Your task to perform on an android device: Do I have any events this weekend? Image 0: 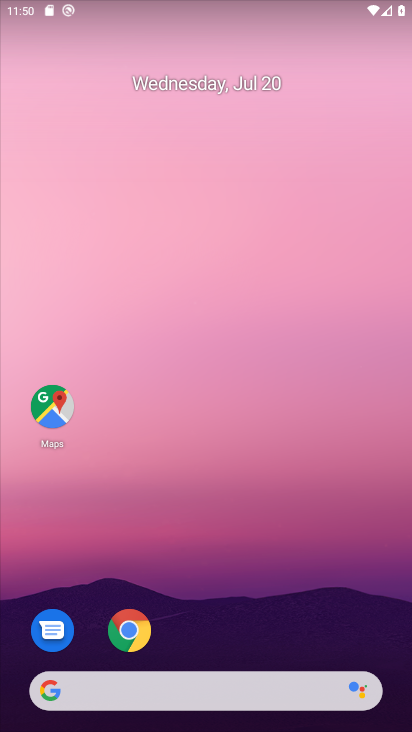
Step 0: drag from (208, 127) to (205, 16)
Your task to perform on an android device: Do I have any events this weekend? Image 1: 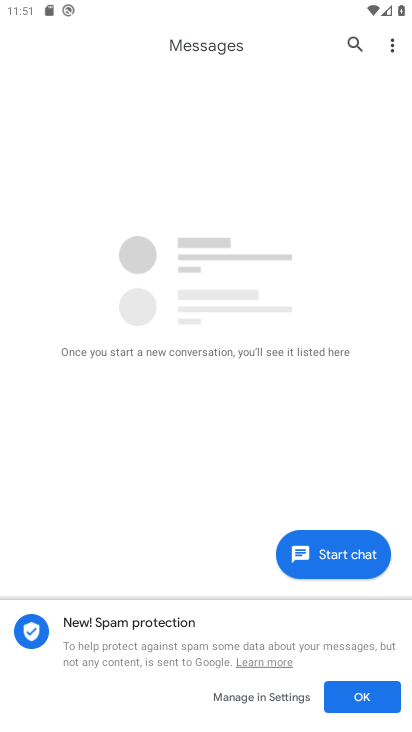
Step 1: drag from (217, 629) to (225, 230)
Your task to perform on an android device: Do I have any events this weekend? Image 2: 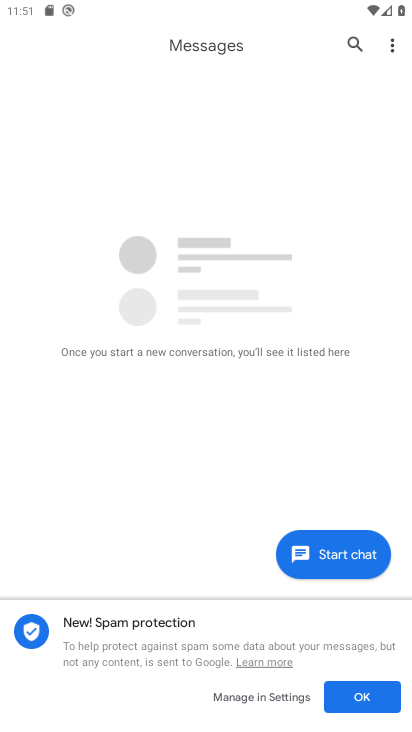
Step 2: press home button
Your task to perform on an android device: Do I have any events this weekend? Image 3: 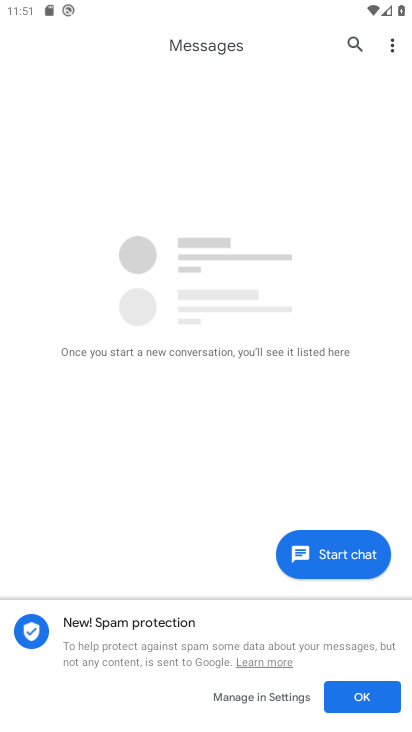
Step 3: press home button
Your task to perform on an android device: Do I have any events this weekend? Image 4: 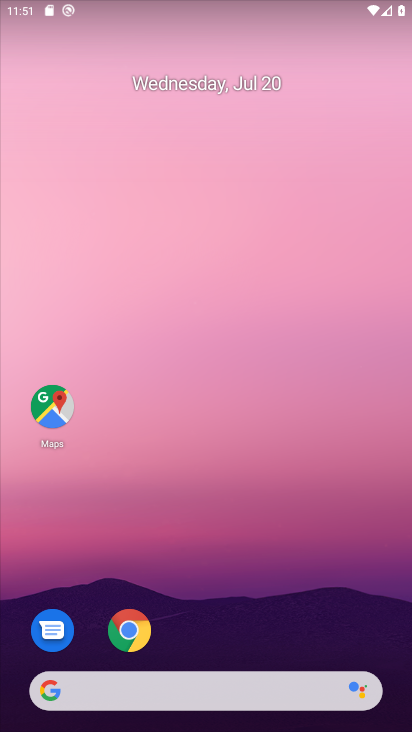
Step 4: drag from (212, 611) to (217, 127)
Your task to perform on an android device: Do I have any events this weekend? Image 5: 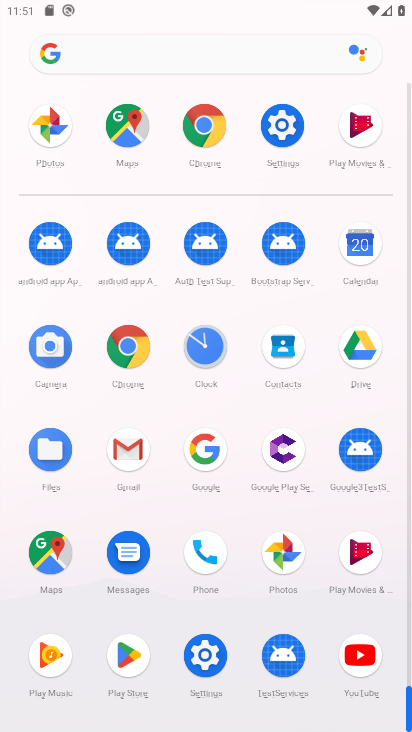
Step 5: click (363, 248)
Your task to perform on an android device: Do I have any events this weekend? Image 6: 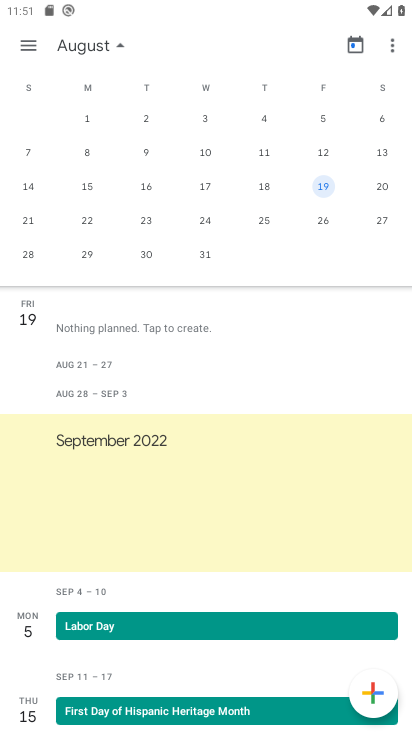
Step 6: drag from (174, 567) to (237, 274)
Your task to perform on an android device: Do I have any events this weekend? Image 7: 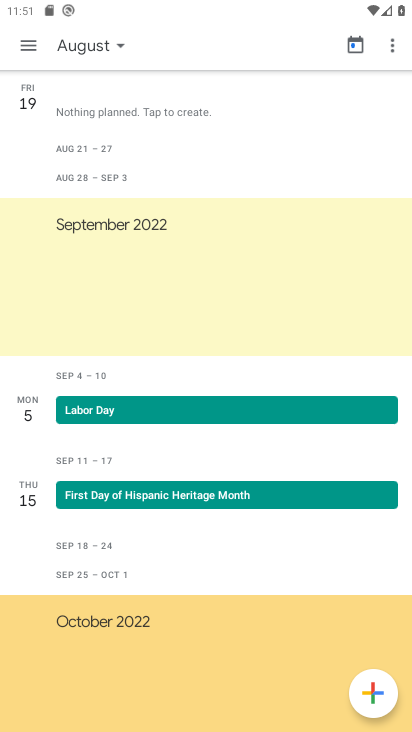
Step 7: click (346, 50)
Your task to perform on an android device: Do I have any events this weekend? Image 8: 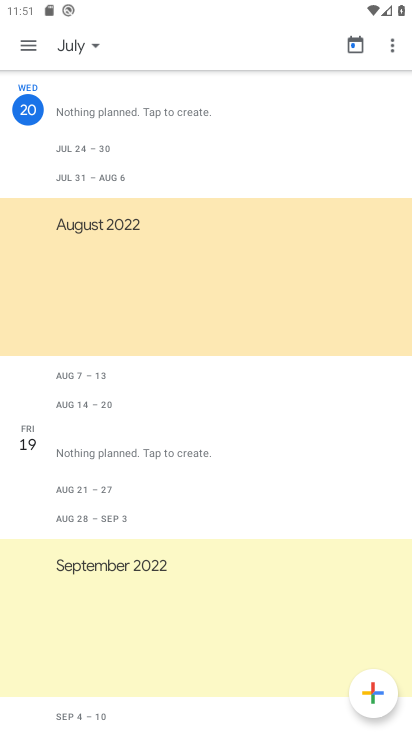
Step 8: click (96, 48)
Your task to perform on an android device: Do I have any events this weekend? Image 9: 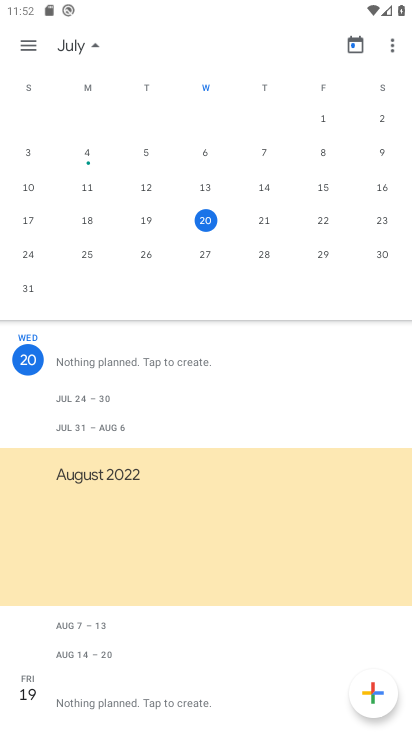
Step 9: click (86, 41)
Your task to perform on an android device: Do I have any events this weekend? Image 10: 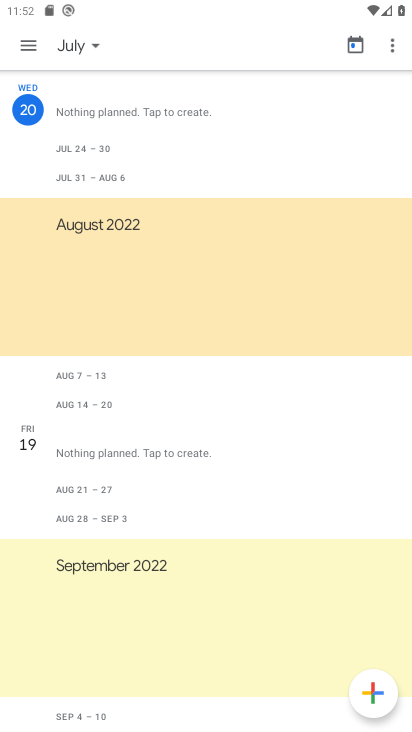
Step 10: click (75, 47)
Your task to perform on an android device: Do I have any events this weekend? Image 11: 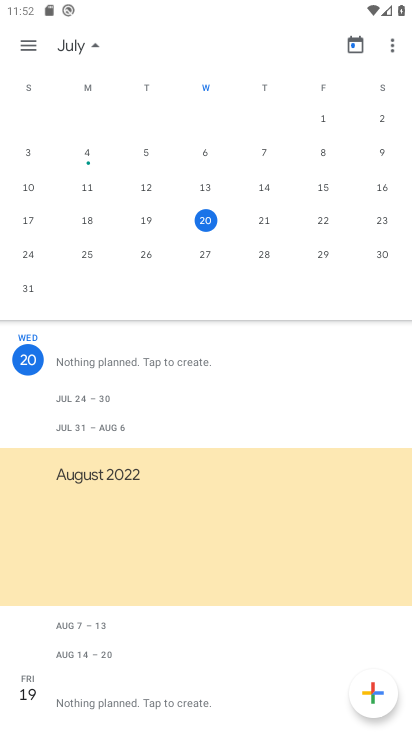
Step 11: click (379, 222)
Your task to perform on an android device: Do I have any events this weekend? Image 12: 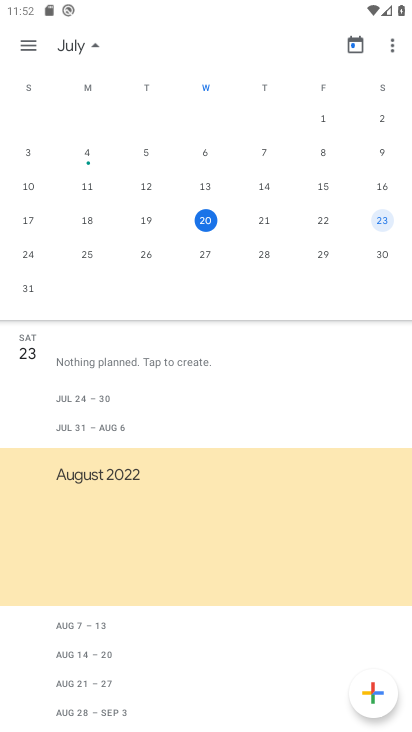
Step 12: task complete